Your task to perform on an android device: create a new album in the google photos Image 0: 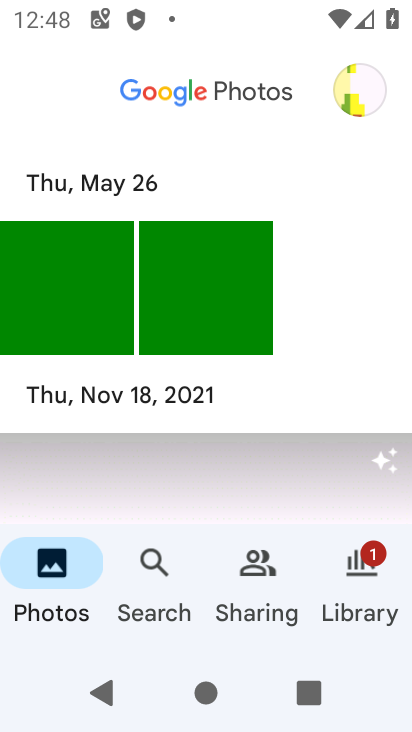
Step 0: click (354, 557)
Your task to perform on an android device: create a new album in the google photos Image 1: 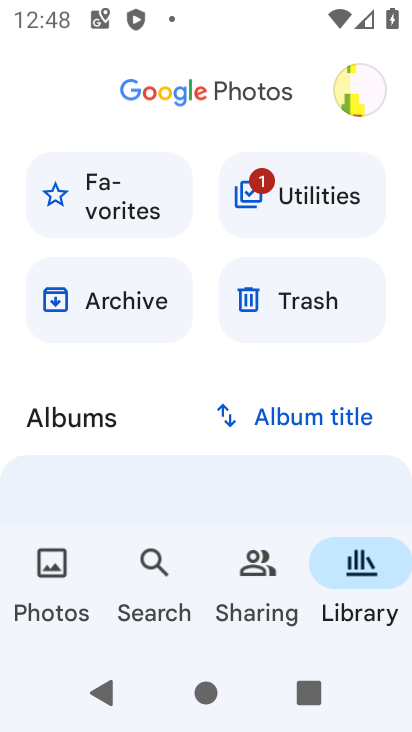
Step 1: drag from (207, 467) to (173, 181)
Your task to perform on an android device: create a new album in the google photos Image 2: 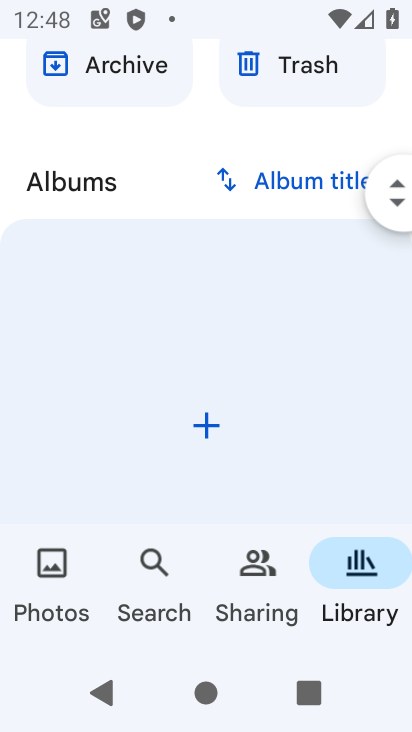
Step 2: click (197, 437)
Your task to perform on an android device: create a new album in the google photos Image 3: 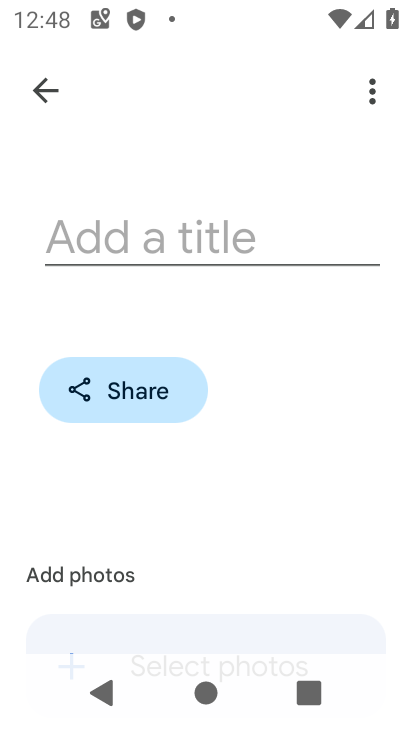
Step 3: click (178, 226)
Your task to perform on an android device: create a new album in the google photos Image 4: 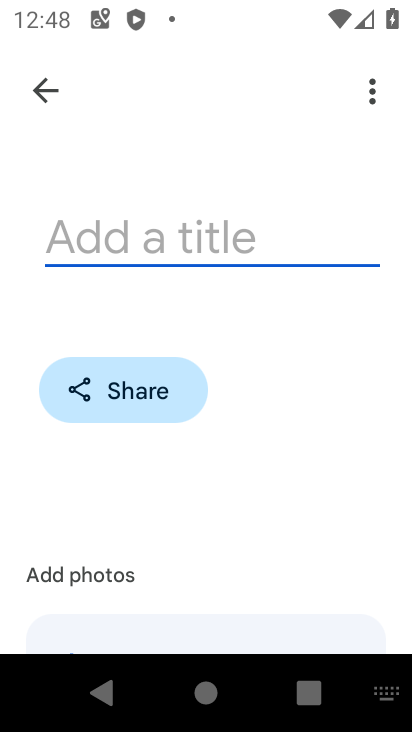
Step 4: type "qqww"
Your task to perform on an android device: create a new album in the google photos Image 5: 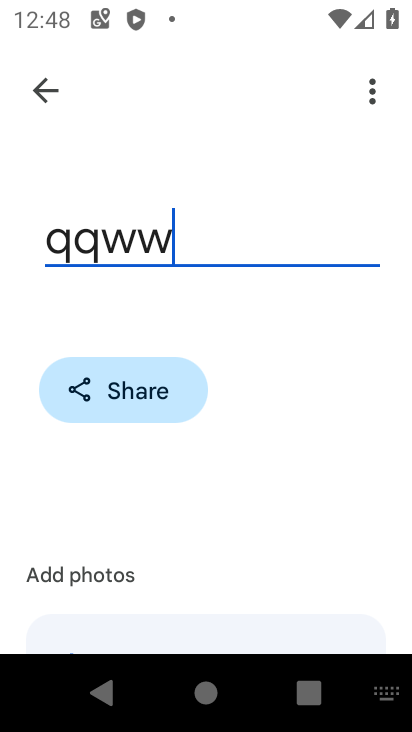
Step 5: click (135, 621)
Your task to perform on an android device: create a new album in the google photos Image 6: 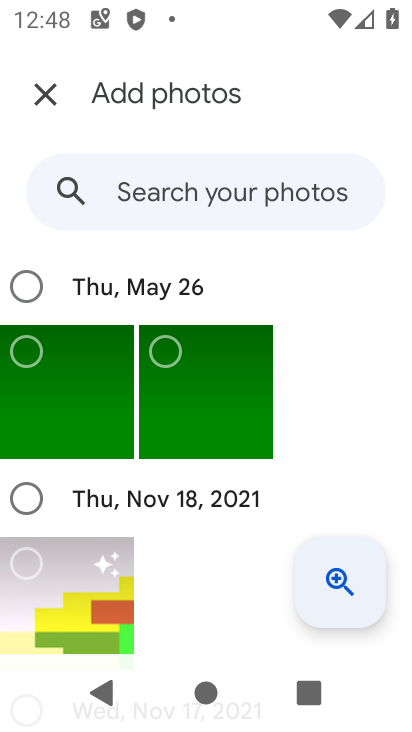
Step 6: click (42, 377)
Your task to perform on an android device: create a new album in the google photos Image 7: 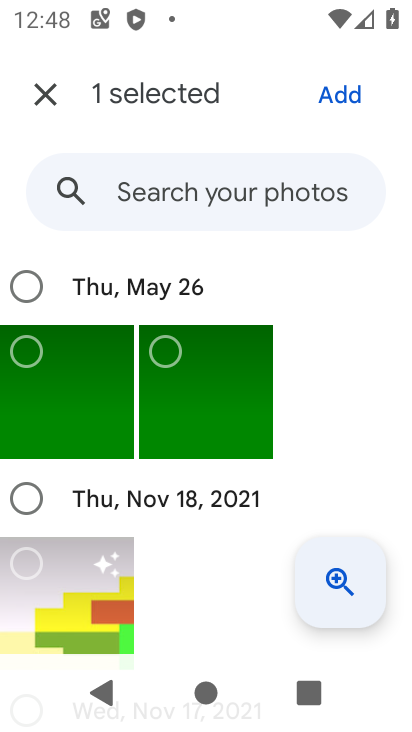
Step 7: click (202, 366)
Your task to perform on an android device: create a new album in the google photos Image 8: 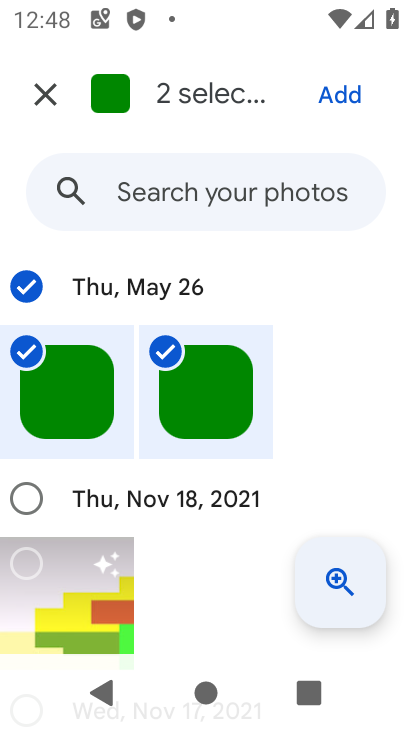
Step 8: task complete